Your task to perform on an android device: Open settings Image 0: 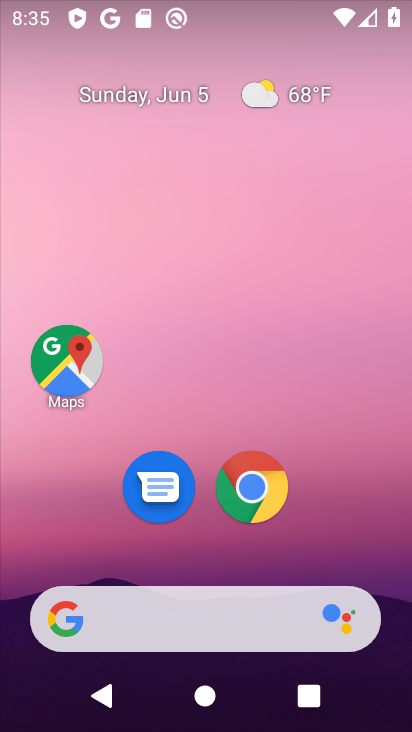
Step 0: drag from (234, 551) to (233, 56)
Your task to perform on an android device: Open settings Image 1: 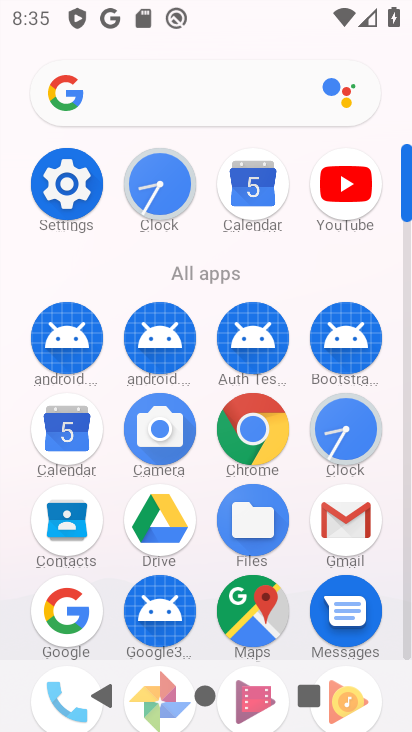
Step 1: click (49, 182)
Your task to perform on an android device: Open settings Image 2: 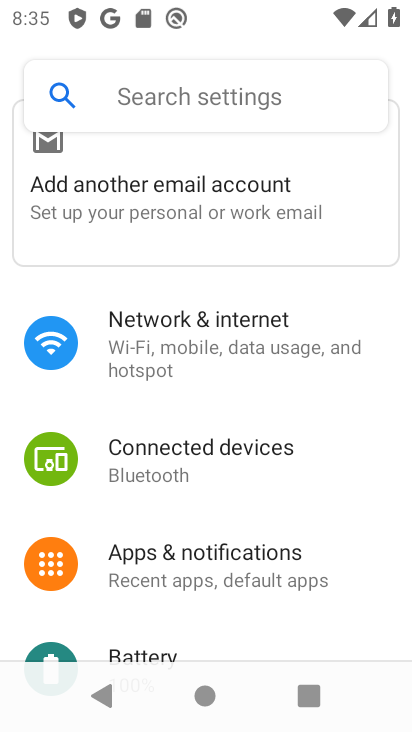
Step 2: task complete